Your task to perform on an android device: Go to battery settings Image 0: 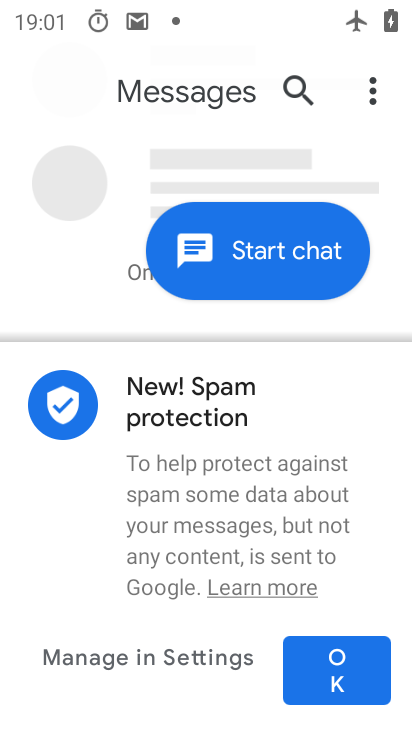
Step 0: press home button
Your task to perform on an android device: Go to battery settings Image 1: 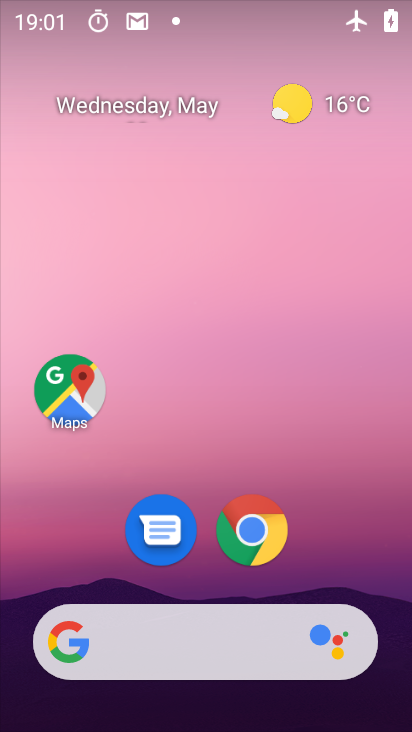
Step 1: drag from (184, 597) to (216, 210)
Your task to perform on an android device: Go to battery settings Image 2: 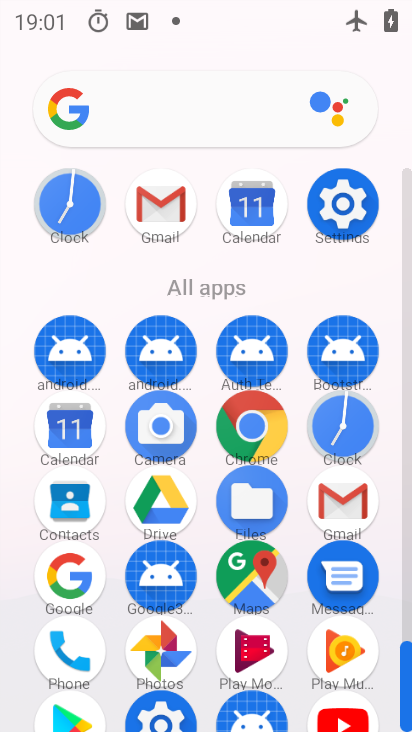
Step 2: click (340, 209)
Your task to perform on an android device: Go to battery settings Image 3: 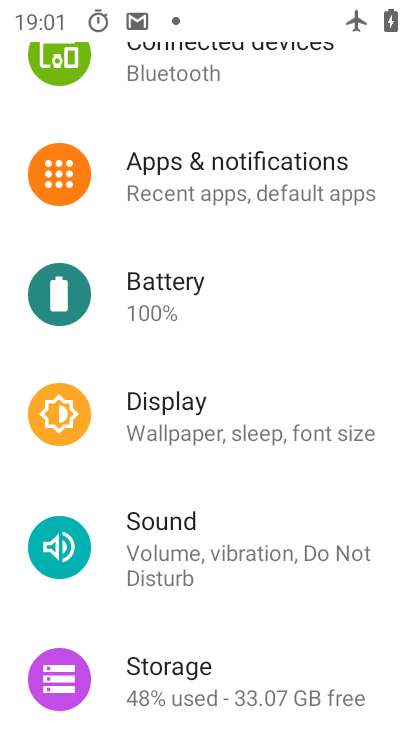
Step 3: click (152, 307)
Your task to perform on an android device: Go to battery settings Image 4: 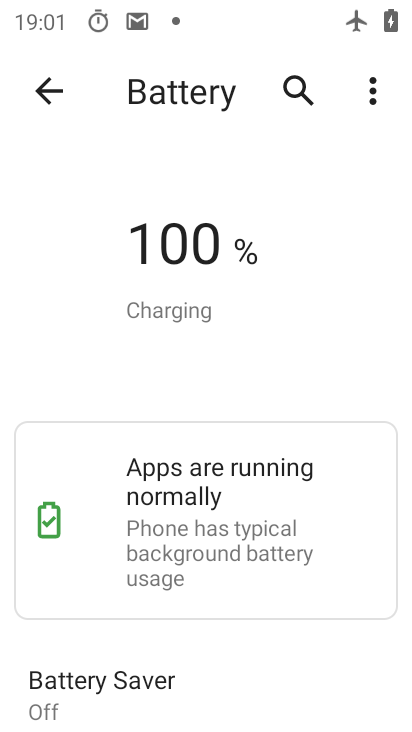
Step 4: task complete